Your task to perform on an android device: Open settings on Google Maps Image 0: 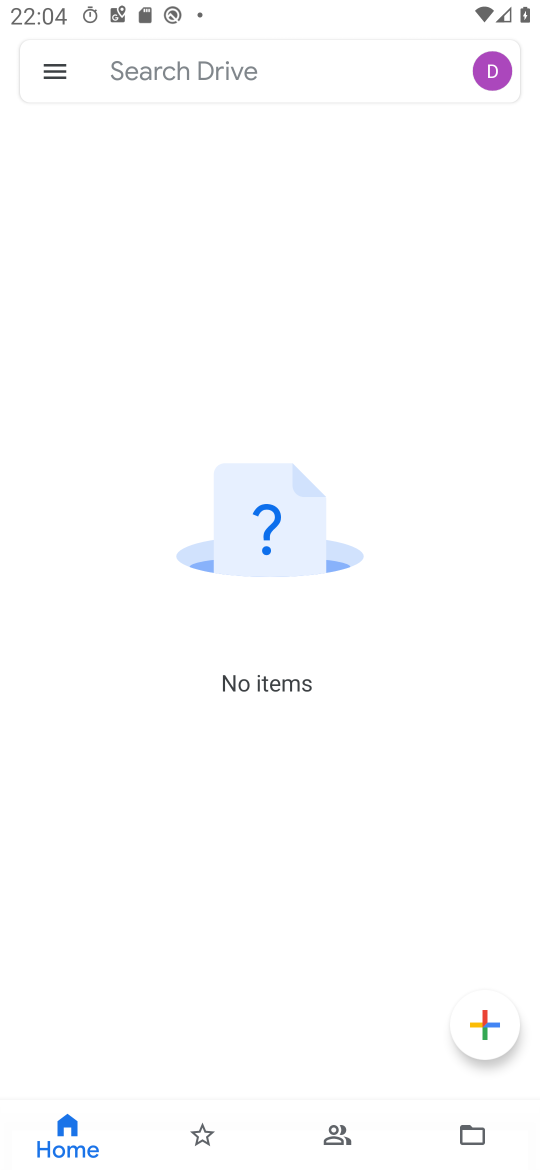
Step 0: press home button
Your task to perform on an android device: Open settings on Google Maps Image 1: 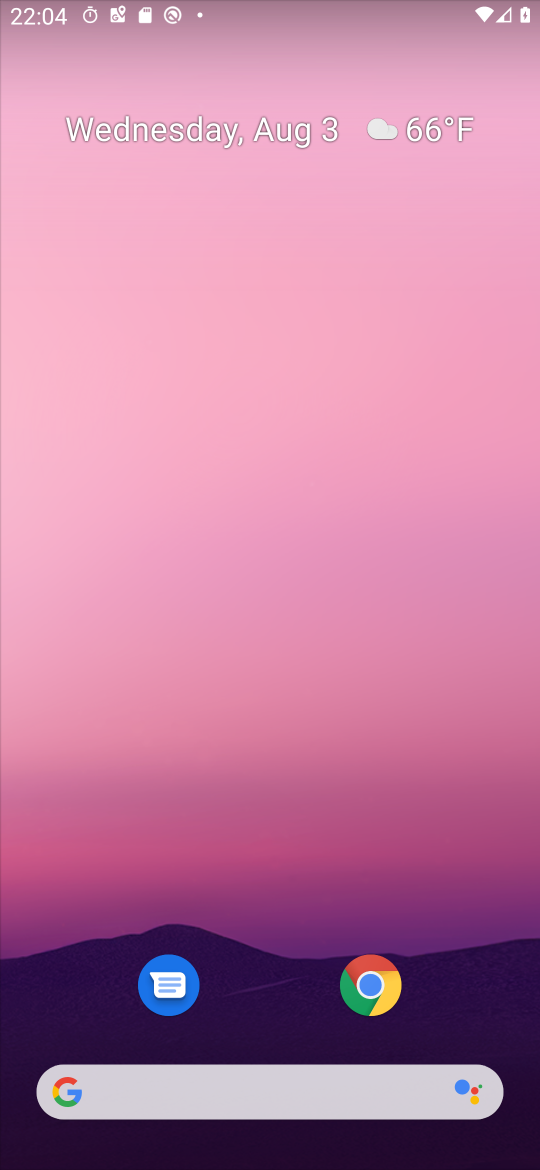
Step 1: drag from (286, 978) to (219, 263)
Your task to perform on an android device: Open settings on Google Maps Image 2: 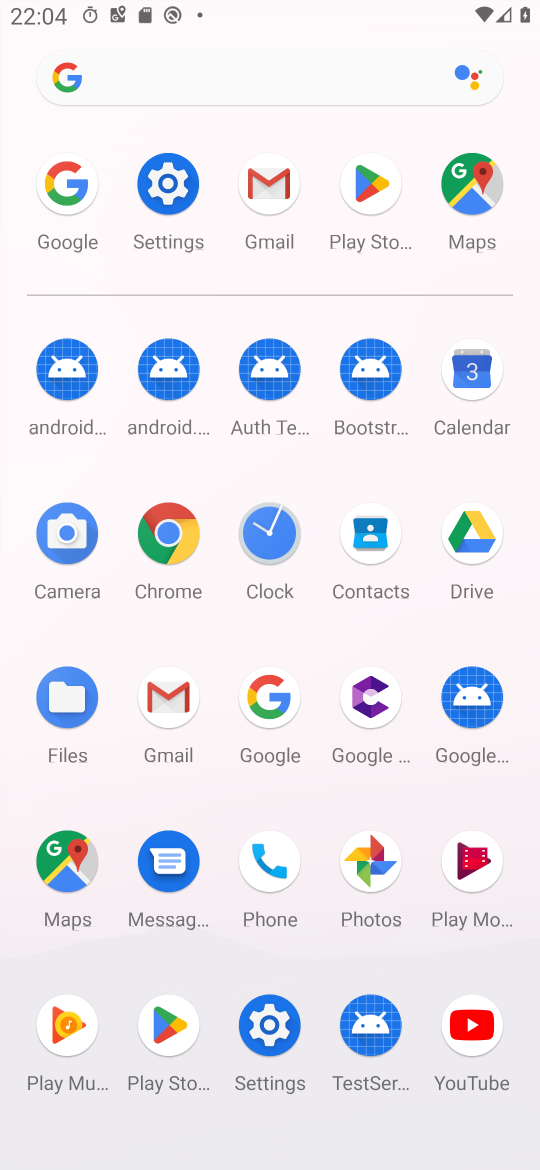
Step 2: click (478, 195)
Your task to perform on an android device: Open settings on Google Maps Image 3: 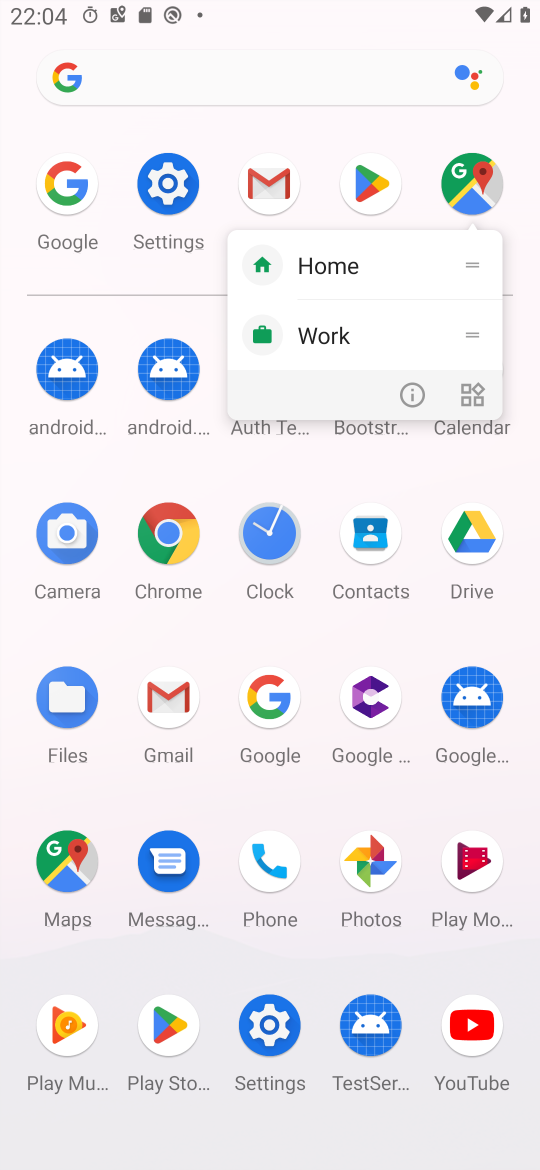
Step 3: click (464, 197)
Your task to perform on an android device: Open settings on Google Maps Image 4: 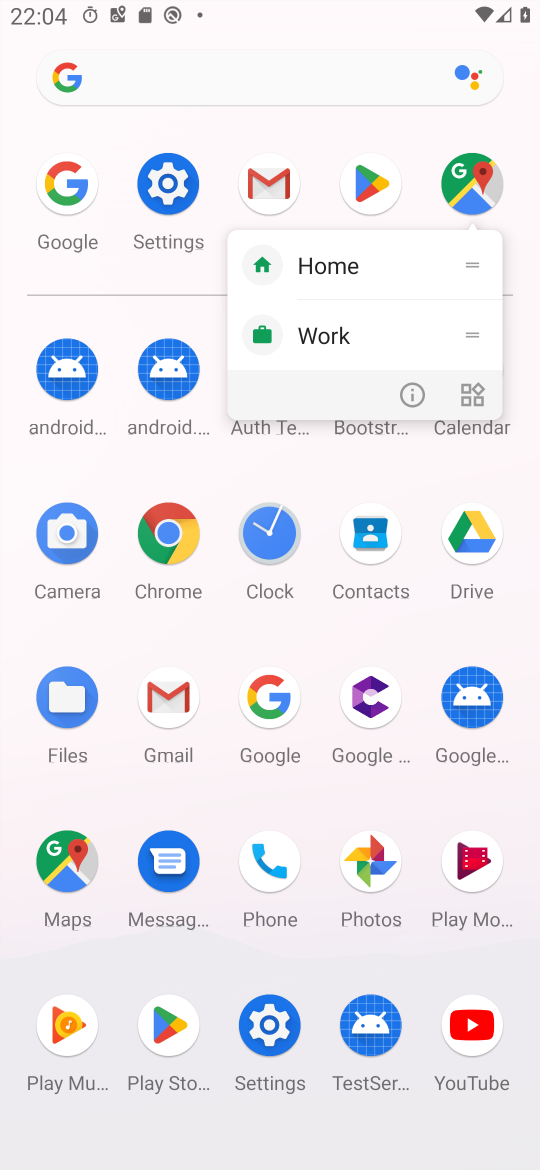
Step 4: click (464, 197)
Your task to perform on an android device: Open settings on Google Maps Image 5: 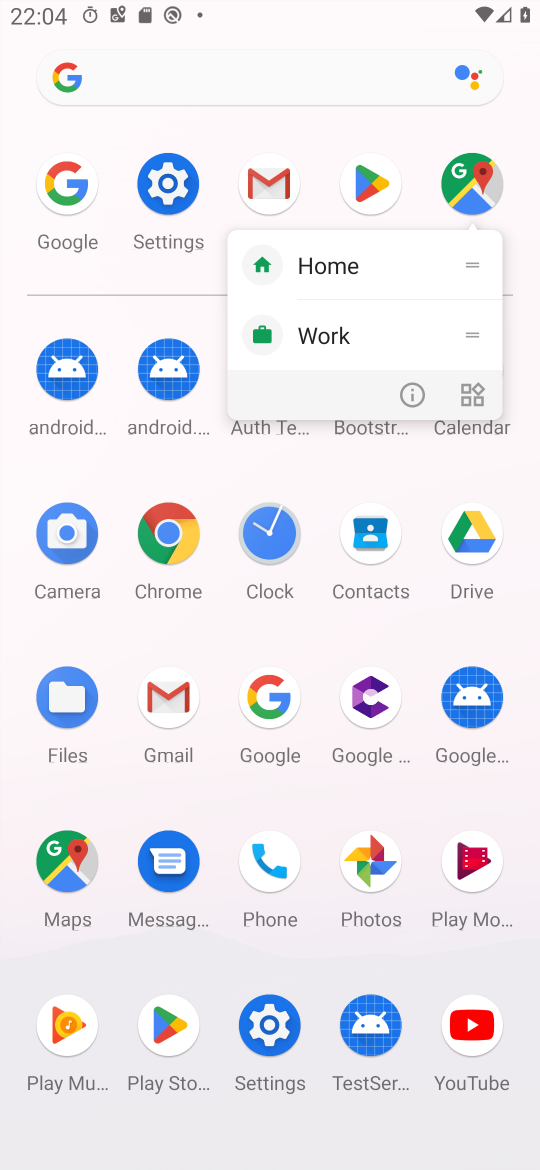
Step 5: click (484, 178)
Your task to perform on an android device: Open settings on Google Maps Image 6: 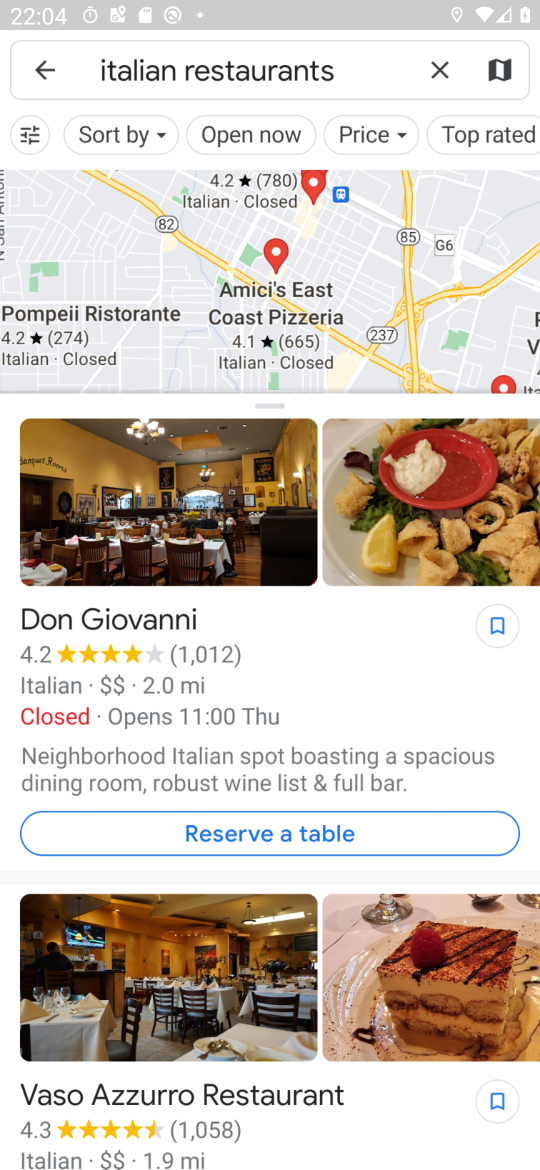
Step 6: click (62, 76)
Your task to perform on an android device: Open settings on Google Maps Image 7: 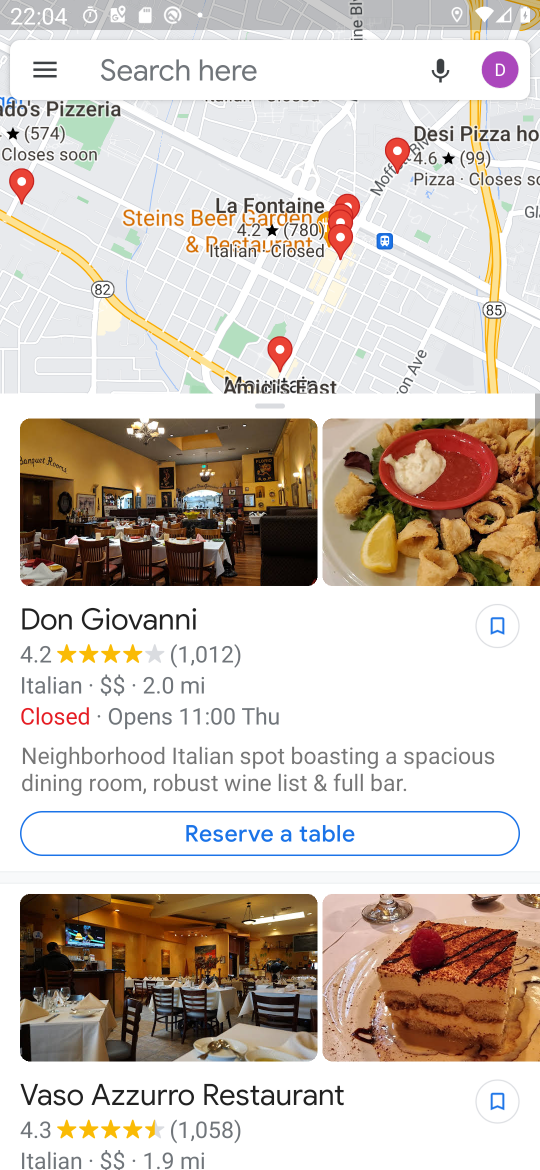
Step 7: click (62, 76)
Your task to perform on an android device: Open settings on Google Maps Image 8: 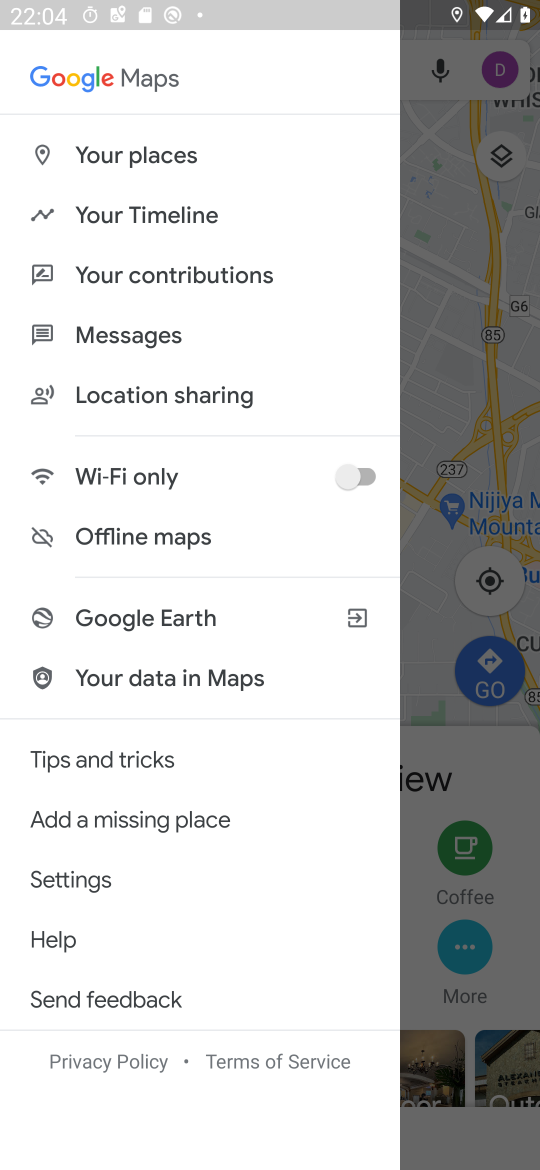
Step 8: click (56, 869)
Your task to perform on an android device: Open settings on Google Maps Image 9: 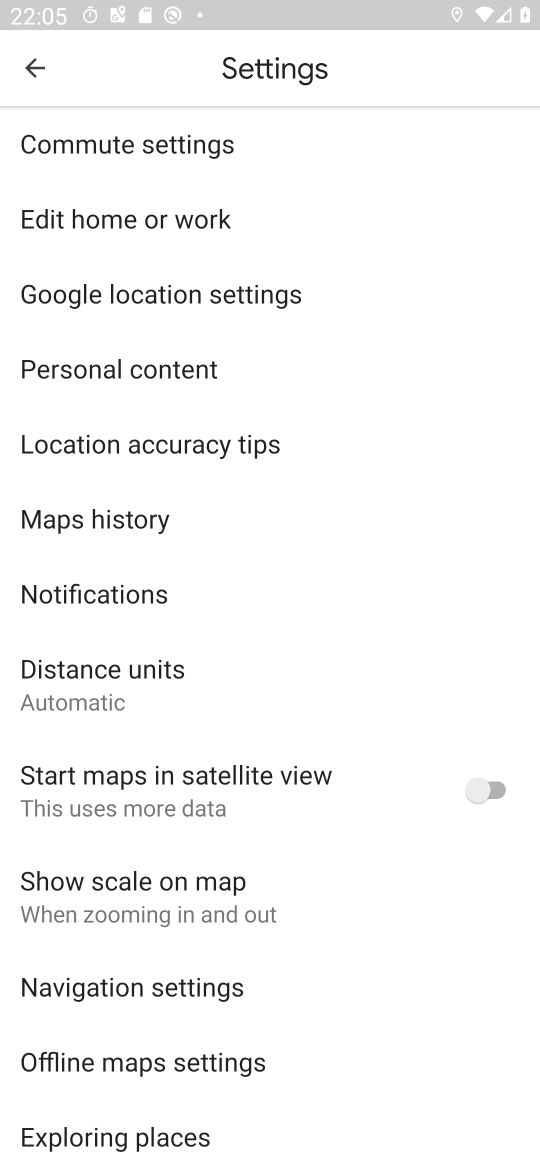
Step 9: task complete